Your task to perform on an android device: check out phone information Image 0: 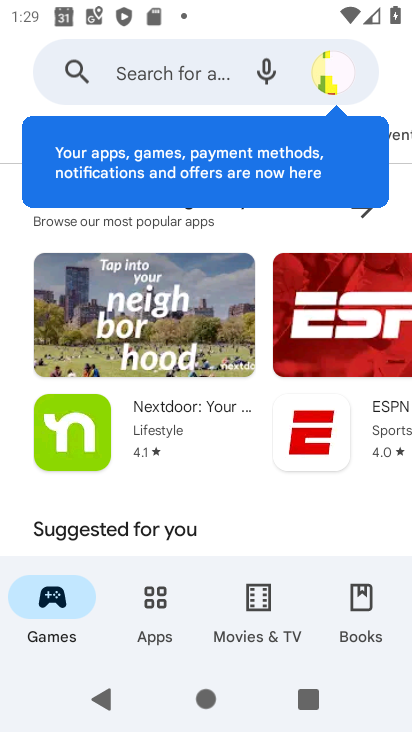
Step 0: press home button
Your task to perform on an android device: check out phone information Image 1: 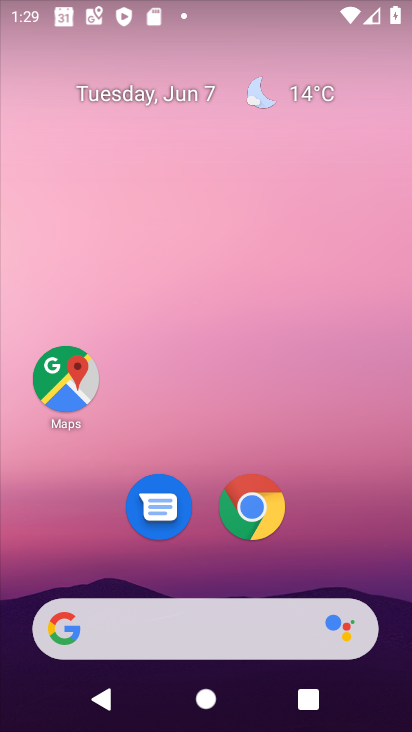
Step 1: drag from (393, 573) to (321, 58)
Your task to perform on an android device: check out phone information Image 2: 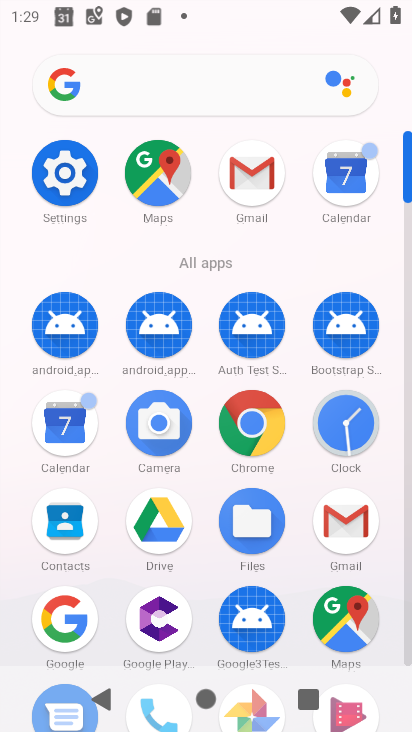
Step 2: click (407, 650)
Your task to perform on an android device: check out phone information Image 3: 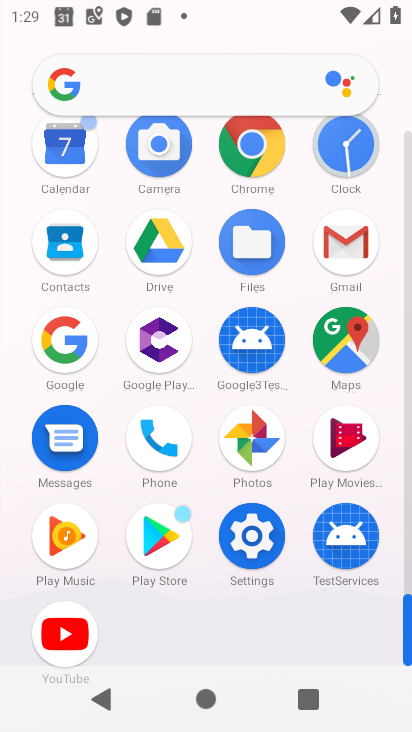
Step 3: click (253, 532)
Your task to perform on an android device: check out phone information Image 4: 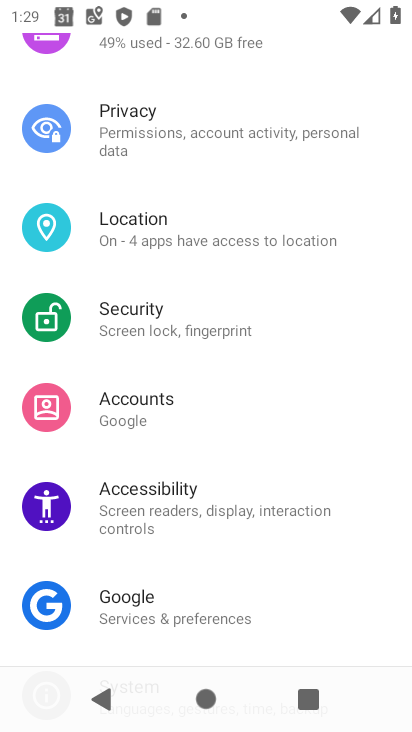
Step 4: drag from (279, 584) to (215, 130)
Your task to perform on an android device: check out phone information Image 5: 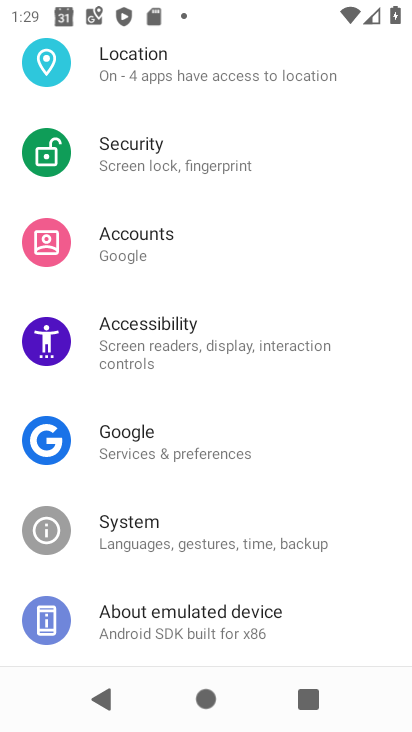
Step 5: click (185, 619)
Your task to perform on an android device: check out phone information Image 6: 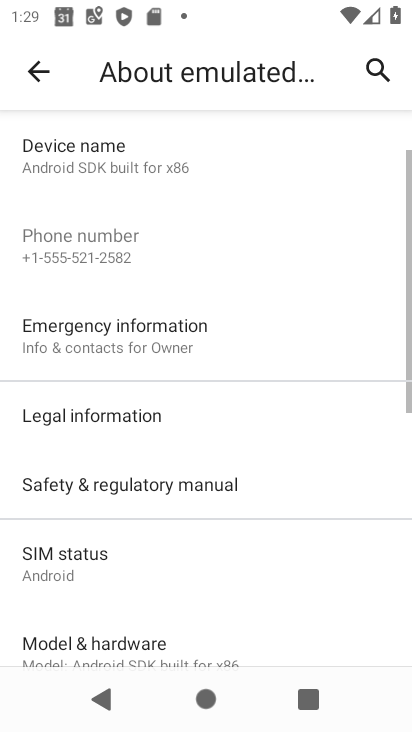
Step 6: task complete